Your task to perform on an android device: turn on wifi Image 0: 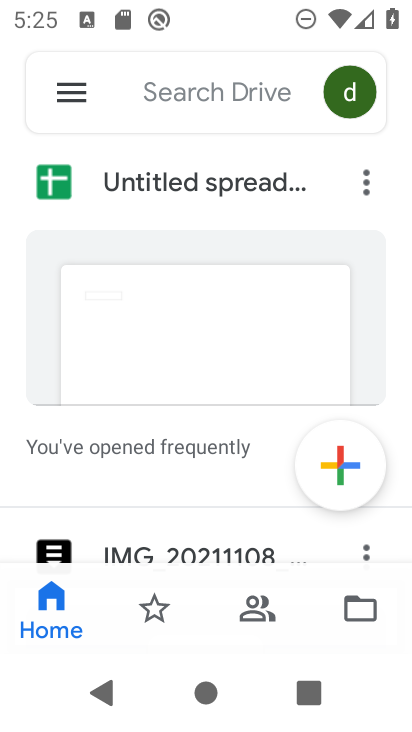
Step 0: drag from (212, 589) to (340, 204)
Your task to perform on an android device: turn on wifi Image 1: 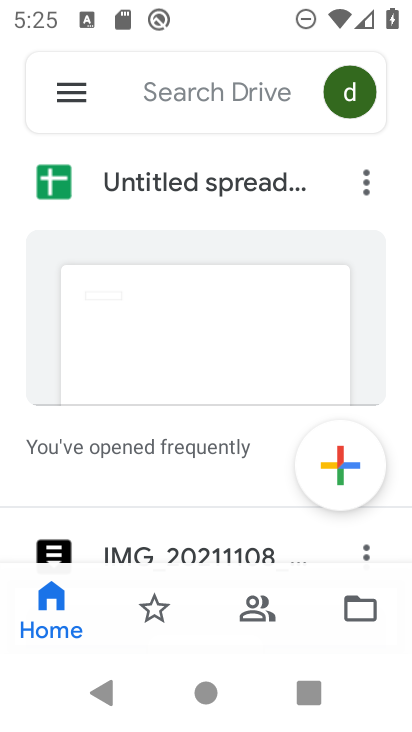
Step 1: press home button
Your task to perform on an android device: turn on wifi Image 2: 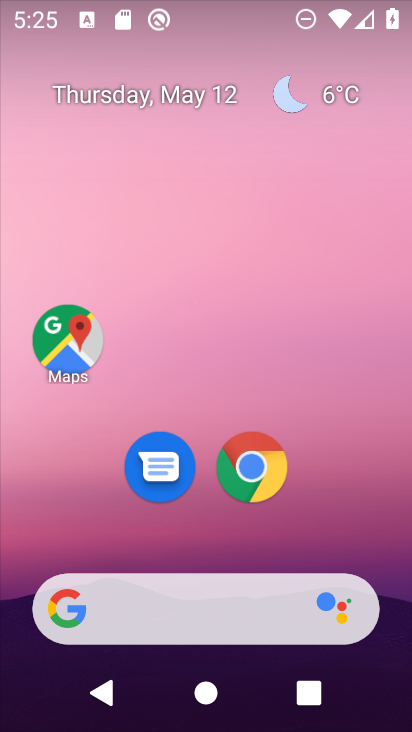
Step 2: drag from (314, 569) to (351, 53)
Your task to perform on an android device: turn on wifi Image 3: 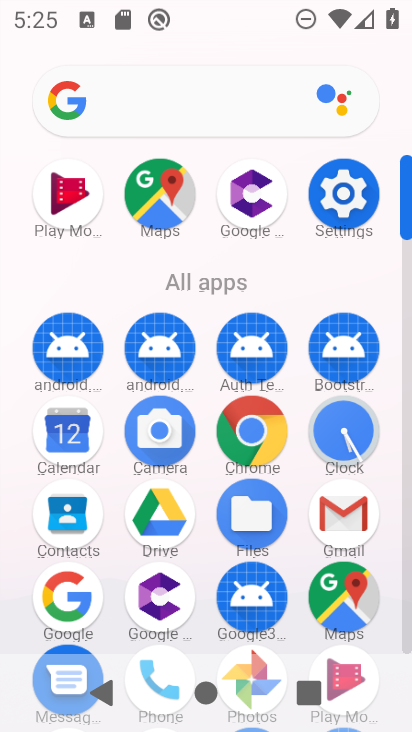
Step 3: click (354, 196)
Your task to perform on an android device: turn on wifi Image 4: 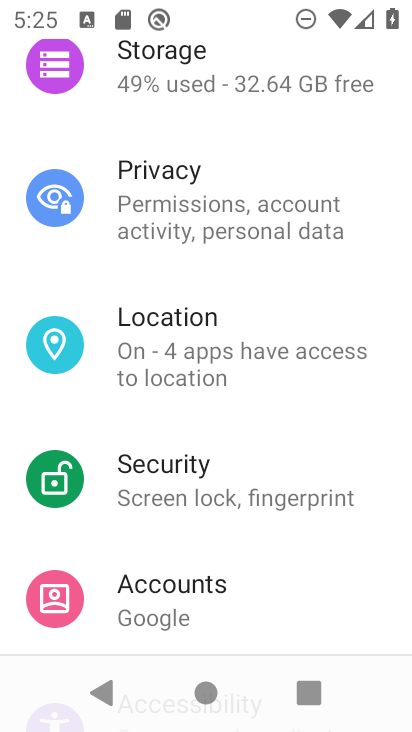
Step 4: drag from (306, 195) to (219, 630)
Your task to perform on an android device: turn on wifi Image 5: 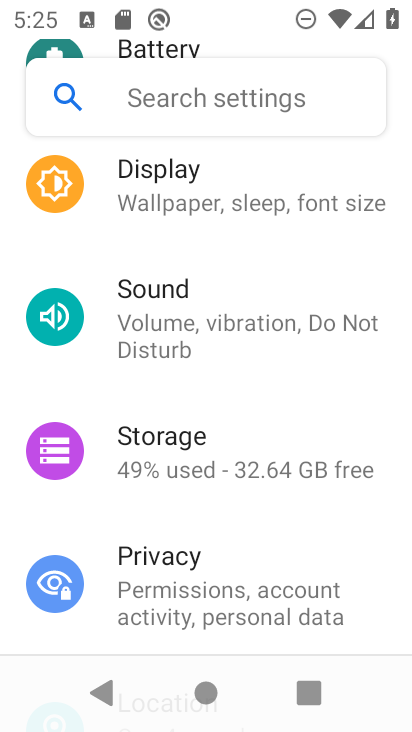
Step 5: drag from (245, 153) to (149, 651)
Your task to perform on an android device: turn on wifi Image 6: 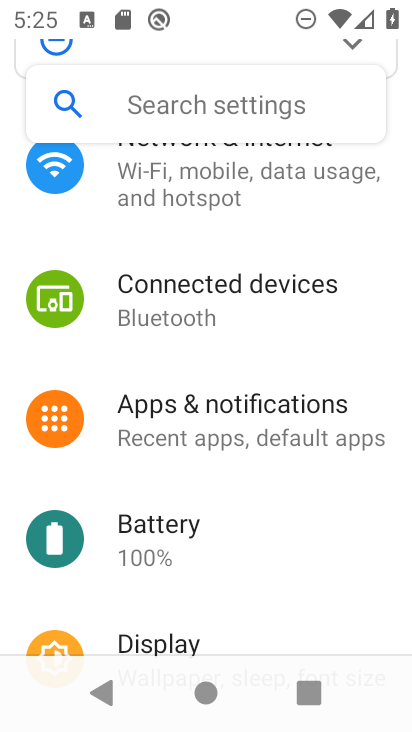
Step 6: drag from (228, 251) to (188, 613)
Your task to perform on an android device: turn on wifi Image 7: 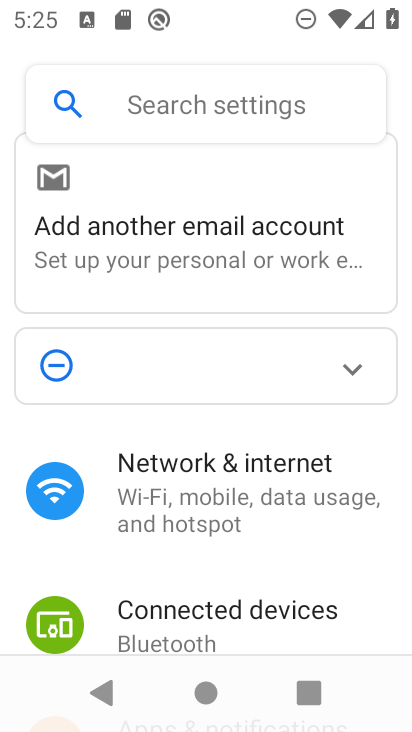
Step 7: click (214, 469)
Your task to perform on an android device: turn on wifi Image 8: 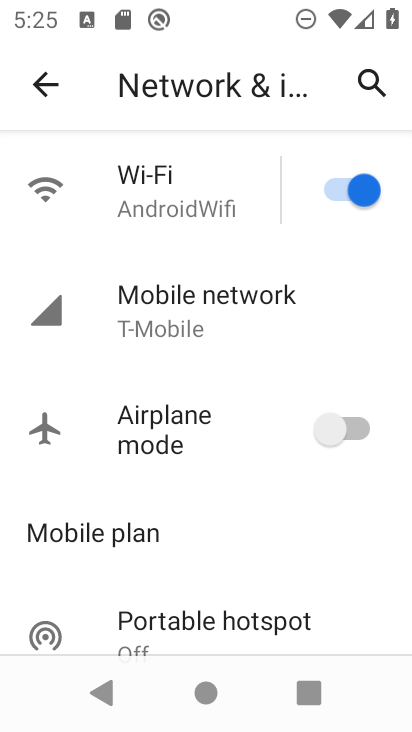
Step 8: task complete